Your task to perform on an android device: Open the calendar and show me this week's events? Image 0: 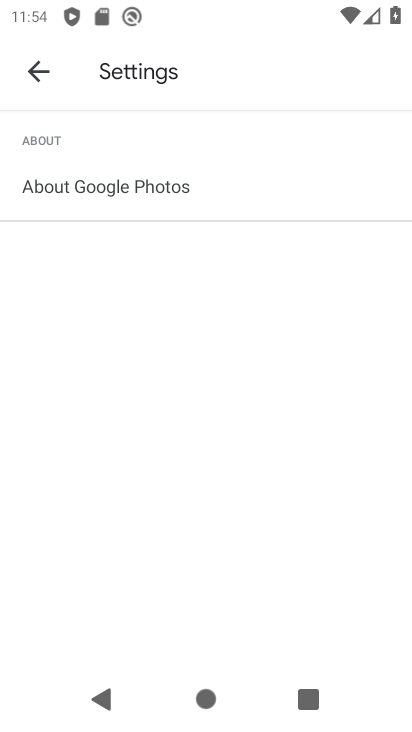
Step 0: press back button
Your task to perform on an android device: Open the calendar and show me this week's events? Image 1: 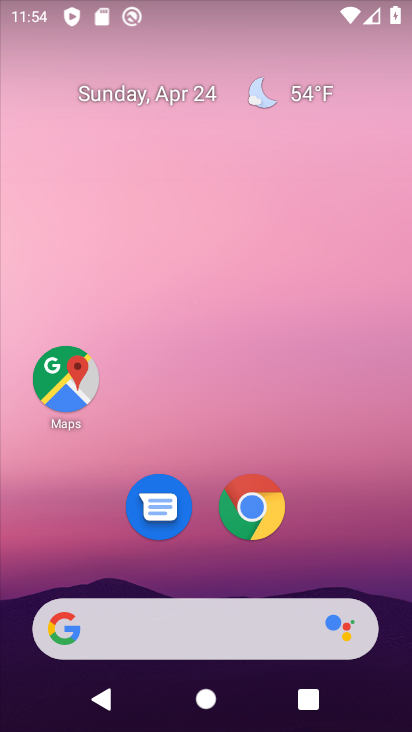
Step 1: drag from (373, 492) to (333, 25)
Your task to perform on an android device: Open the calendar and show me this week's events? Image 2: 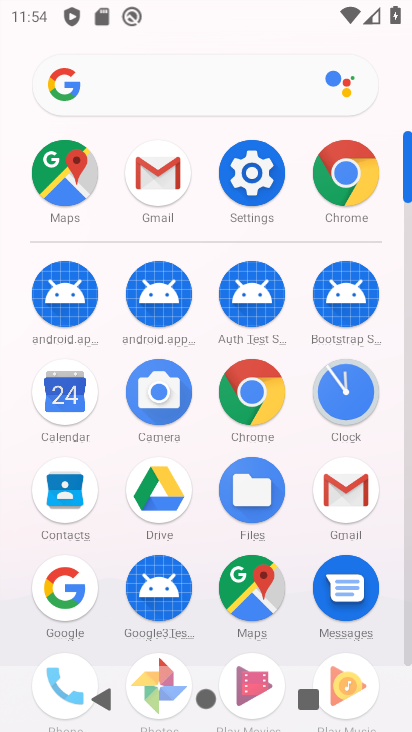
Step 2: drag from (14, 468) to (18, 195)
Your task to perform on an android device: Open the calendar and show me this week's events? Image 3: 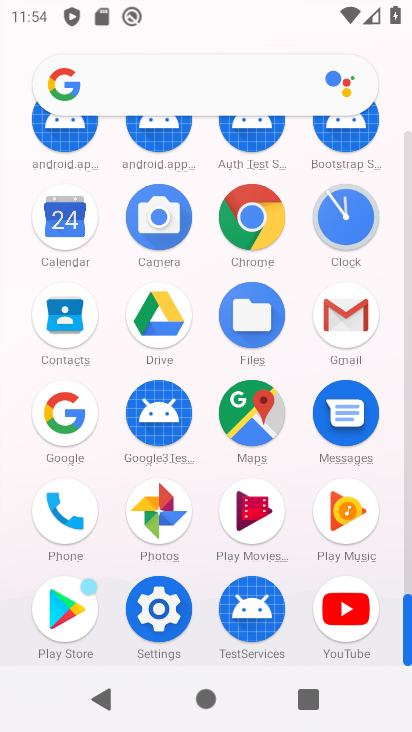
Step 3: drag from (8, 507) to (12, 307)
Your task to perform on an android device: Open the calendar and show me this week's events? Image 4: 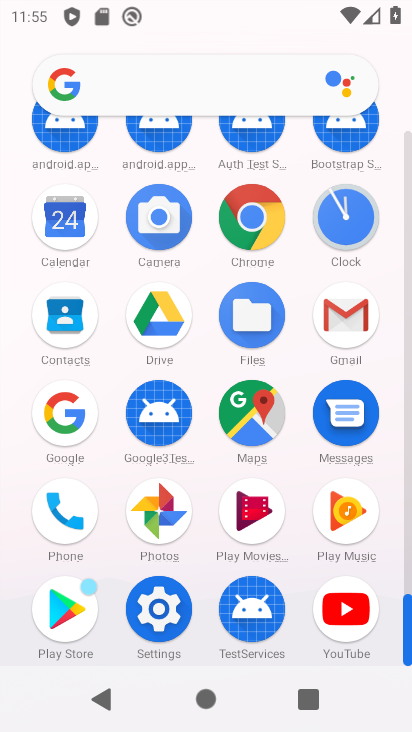
Step 4: drag from (19, 480) to (15, 258)
Your task to perform on an android device: Open the calendar and show me this week's events? Image 5: 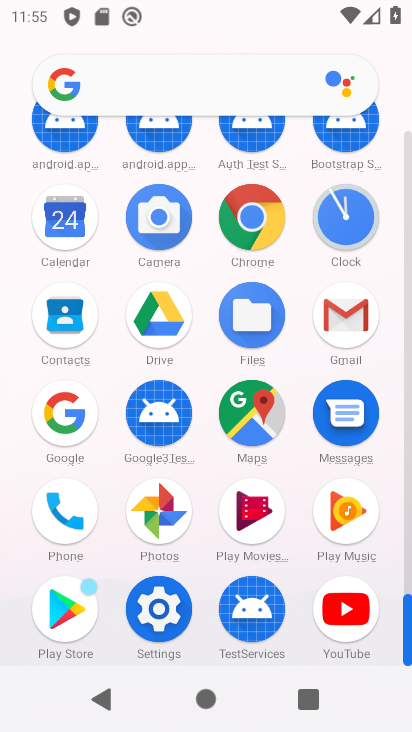
Step 5: click (74, 218)
Your task to perform on an android device: Open the calendar and show me this week's events? Image 6: 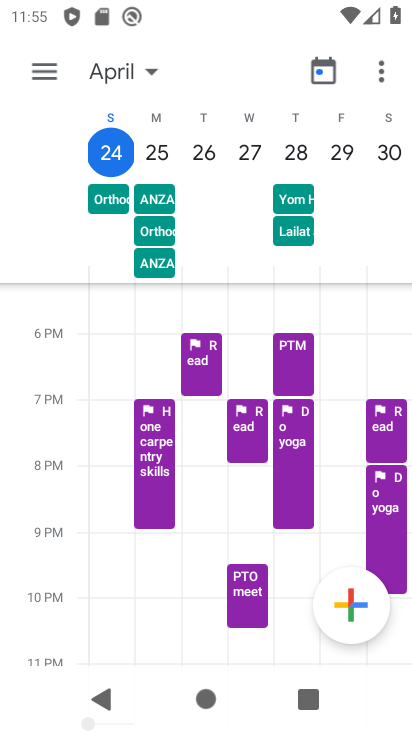
Step 6: click (48, 69)
Your task to perform on an android device: Open the calendar and show me this week's events? Image 7: 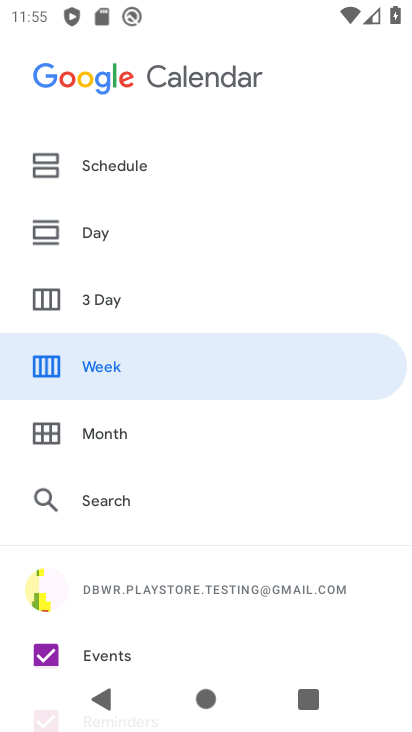
Step 7: click (139, 368)
Your task to perform on an android device: Open the calendar and show me this week's events? Image 8: 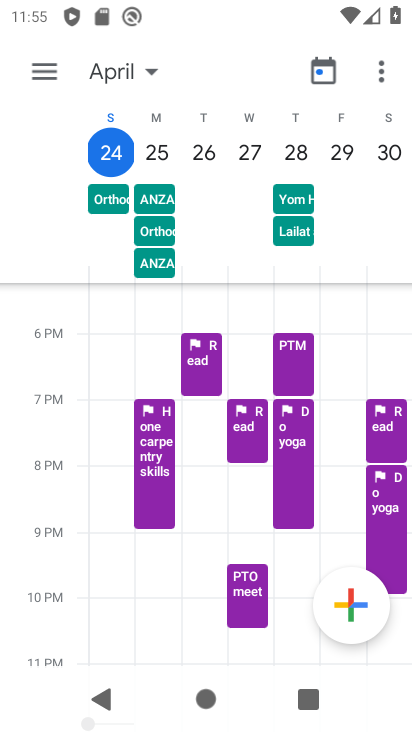
Step 8: task complete